Your task to perform on an android device: check battery use Image 0: 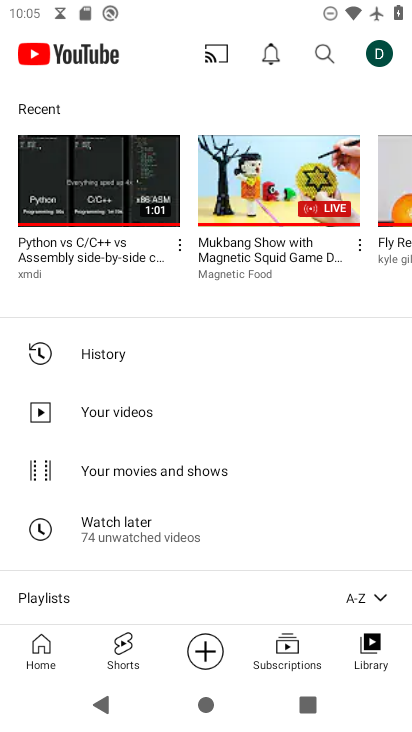
Step 0: press home button
Your task to perform on an android device: check battery use Image 1: 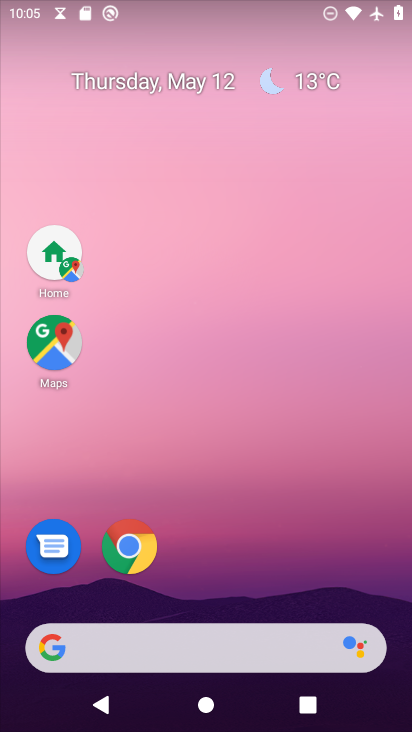
Step 1: drag from (167, 651) to (300, 87)
Your task to perform on an android device: check battery use Image 2: 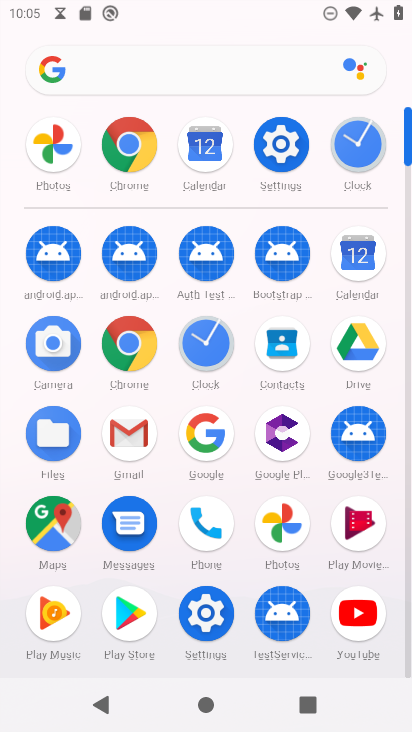
Step 2: click (280, 144)
Your task to perform on an android device: check battery use Image 3: 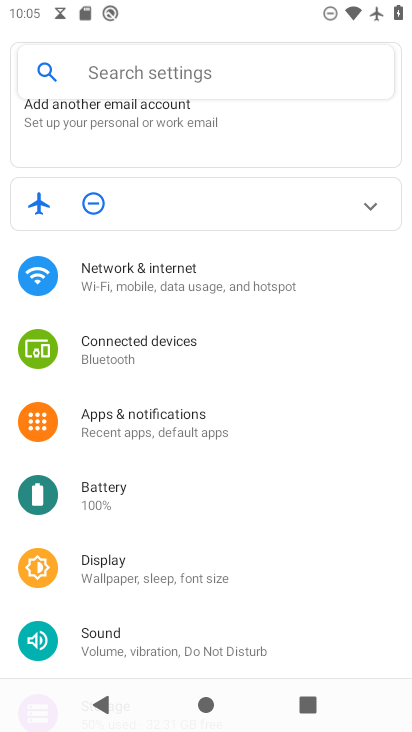
Step 3: click (114, 499)
Your task to perform on an android device: check battery use Image 4: 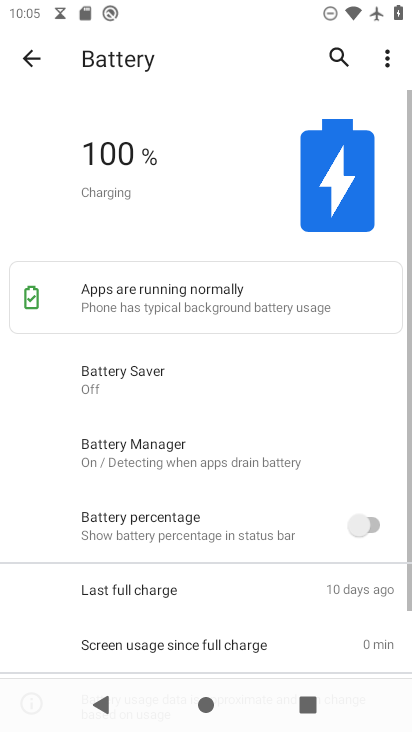
Step 4: task complete